Your task to perform on an android device: Open calendar and show me the second week of next month Image 0: 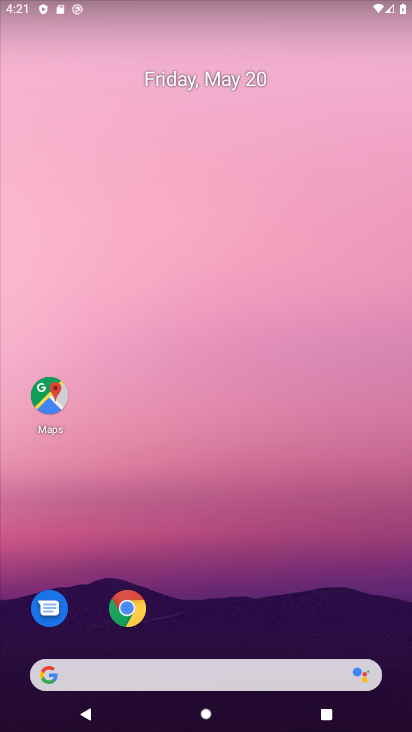
Step 0: drag from (171, 650) to (359, 562)
Your task to perform on an android device: Open calendar and show me the second week of next month Image 1: 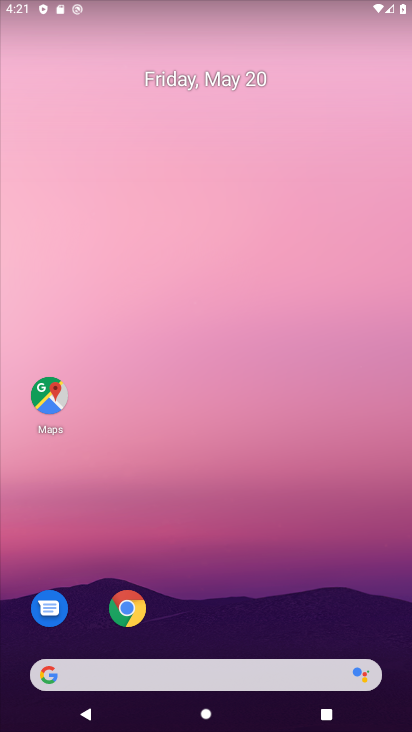
Step 1: drag from (239, 615) to (212, 65)
Your task to perform on an android device: Open calendar and show me the second week of next month Image 2: 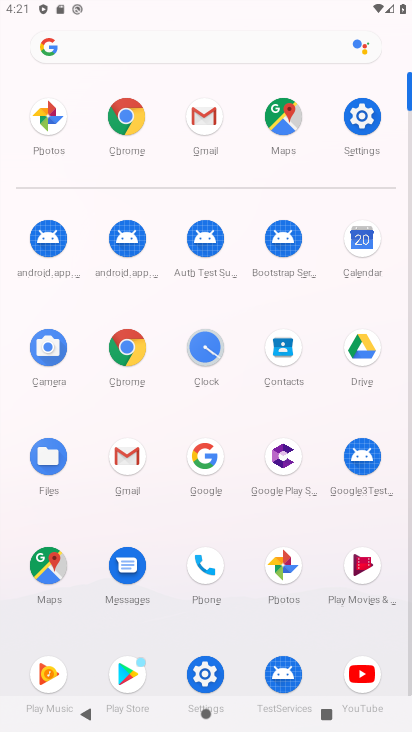
Step 2: click (366, 241)
Your task to perform on an android device: Open calendar and show me the second week of next month Image 3: 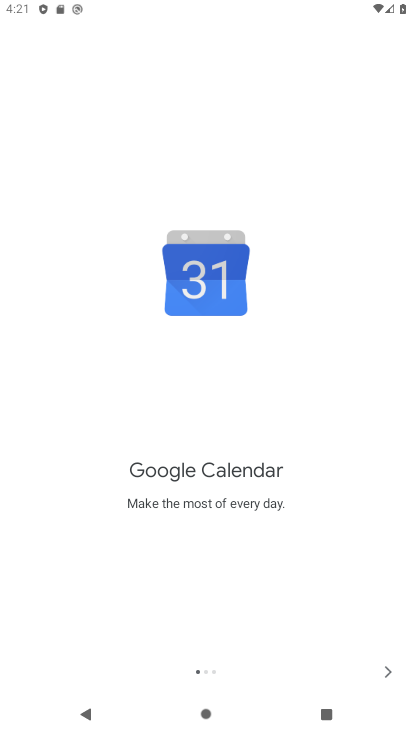
Step 3: click (386, 679)
Your task to perform on an android device: Open calendar and show me the second week of next month Image 4: 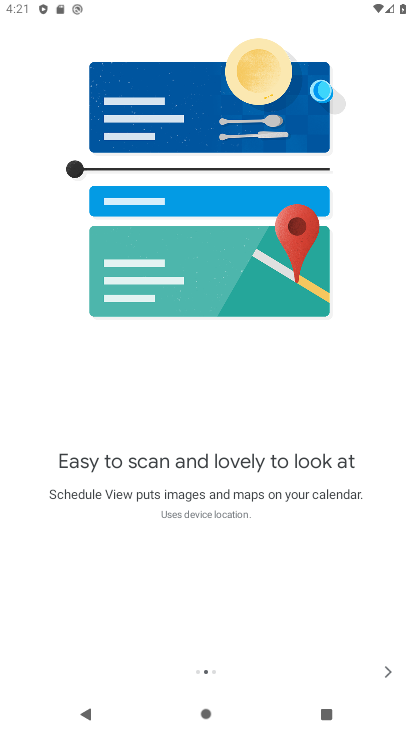
Step 4: click (384, 667)
Your task to perform on an android device: Open calendar and show me the second week of next month Image 5: 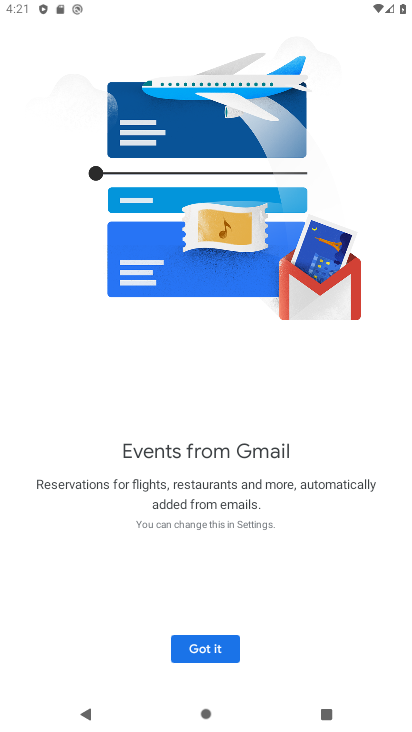
Step 5: click (209, 650)
Your task to perform on an android device: Open calendar and show me the second week of next month Image 6: 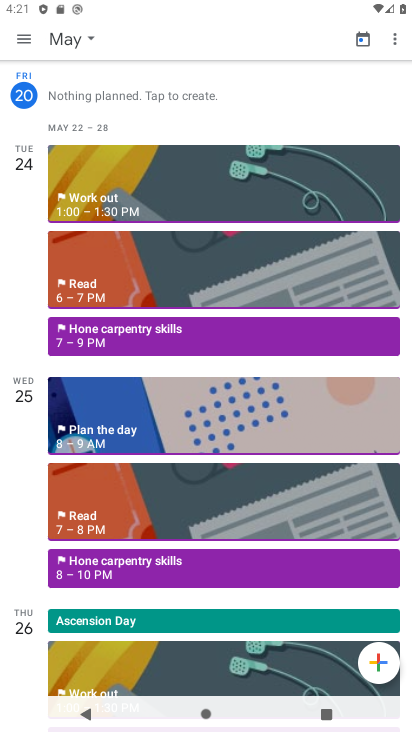
Step 6: click (30, 40)
Your task to perform on an android device: Open calendar and show me the second week of next month Image 7: 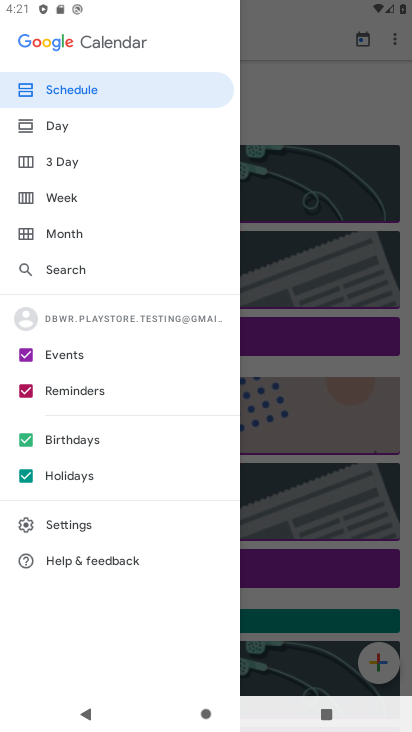
Step 7: click (58, 191)
Your task to perform on an android device: Open calendar and show me the second week of next month Image 8: 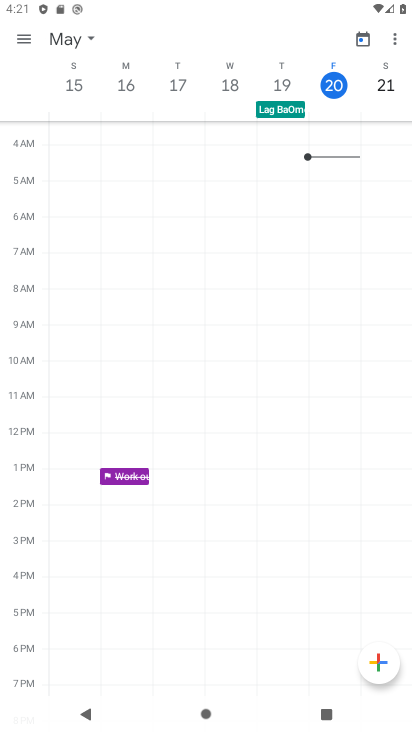
Step 8: task complete